Your task to perform on an android device: Open wifi settings Image 0: 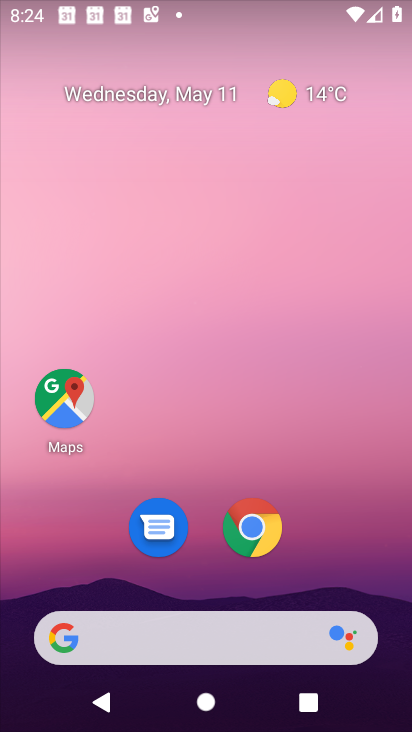
Step 0: drag from (211, 10) to (145, 581)
Your task to perform on an android device: Open wifi settings Image 1: 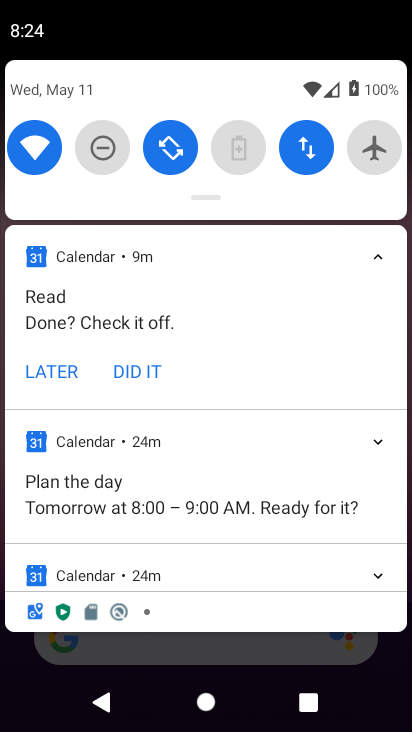
Step 1: click (46, 123)
Your task to perform on an android device: Open wifi settings Image 2: 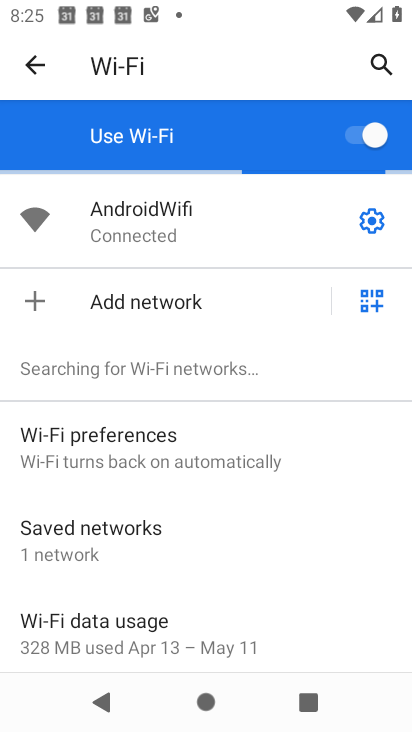
Step 2: task complete